Your task to perform on an android device: create a new album in the google photos Image 0: 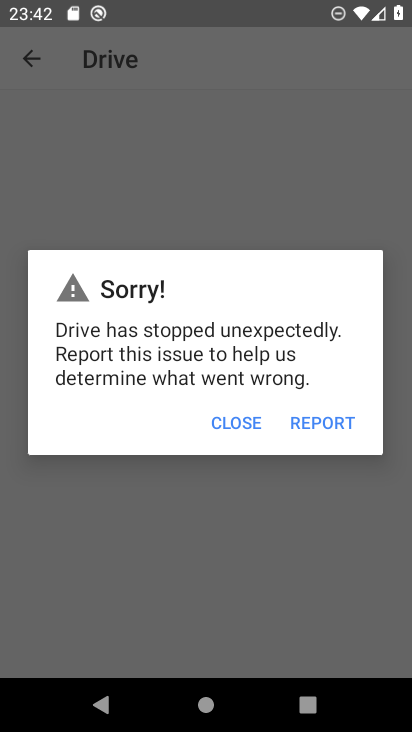
Step 0: press home button
Your task to perform on an android device: create a new album in the google photos Image 1: 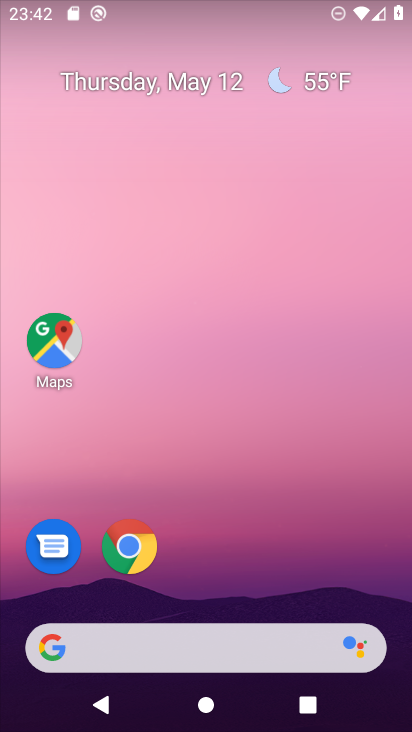
Step 1: drag from (215, 526) to (255, 229)
Your task to perform on an android device: create a new album in the google photos Image 2: 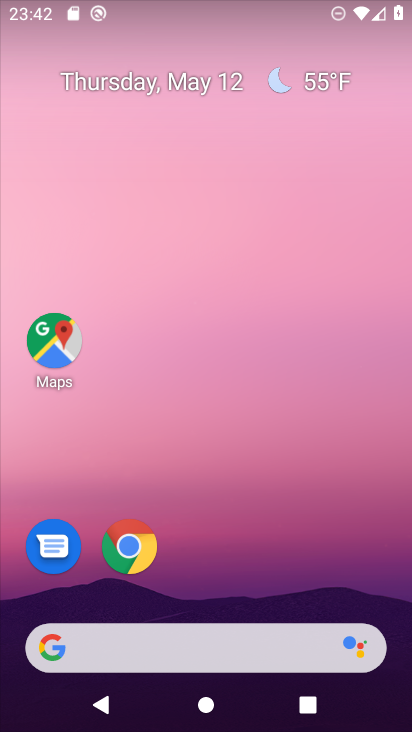
Step 2: drag from (218, 599) to (218, 239)
Your task to perform on an android device: create a new album in the google photos Image 3: 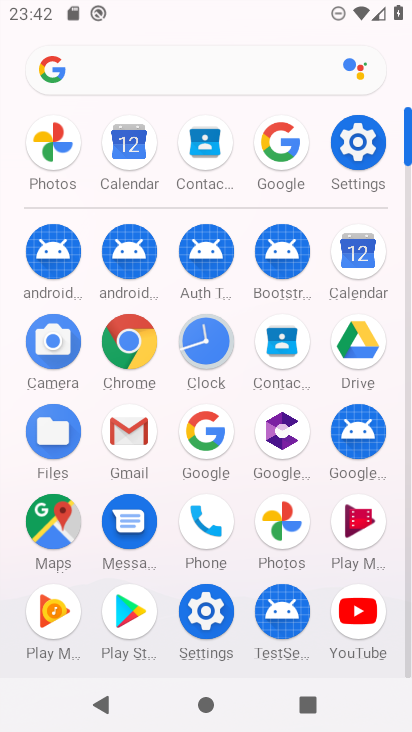
Step 3: click (285, 537)
Your task to perform on an android device: create a new album in the google photos Image 4: 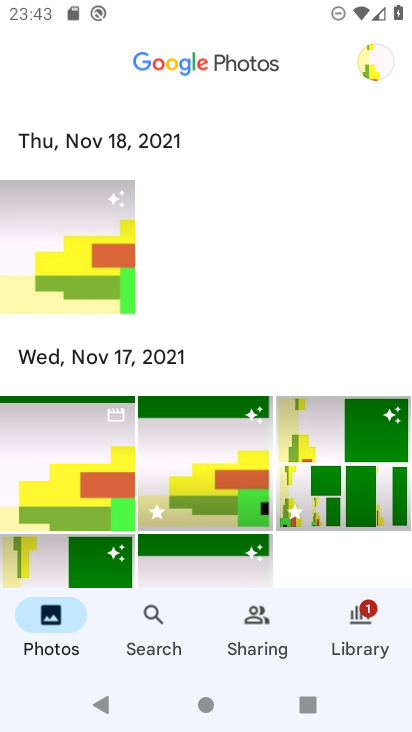
Step 4: click (376, 62)
Your task to perform on an android device: create a new album in the google photos Image 5: 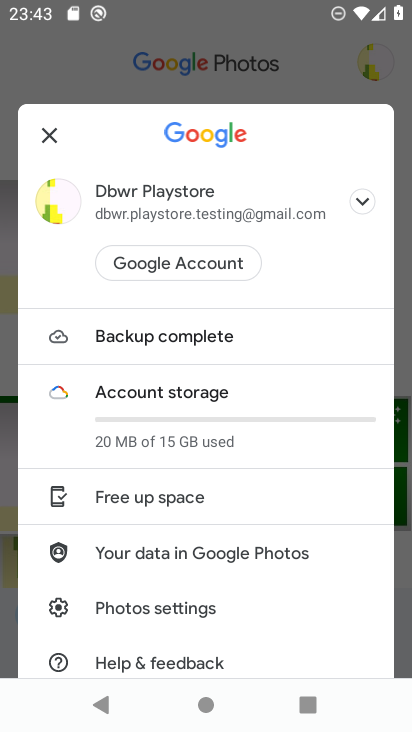
Step 5: click (97, 695)
Your task to perform on an android device: create a new album in the google photos Image 6: 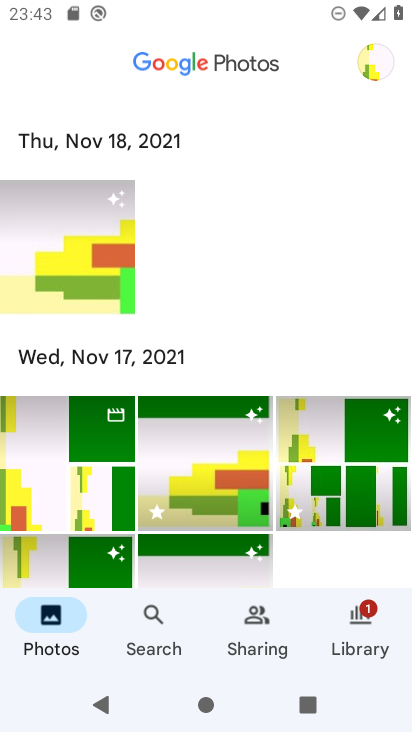
Step 6: click (362, 630)
Your task to perform on an android device: create a new album in the google photos Image 7: 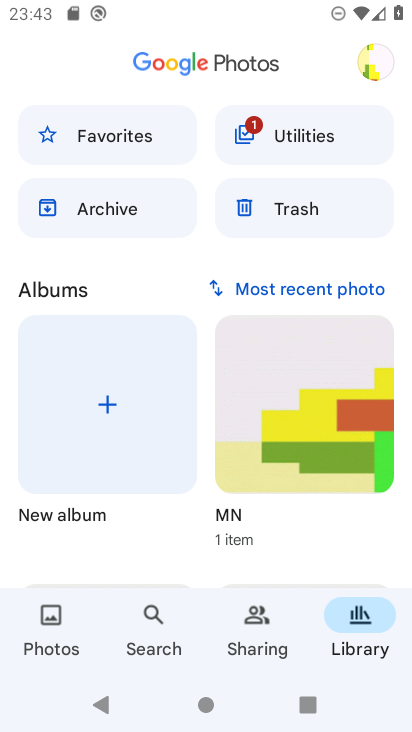
Step 7: click (90, 406)
Your task to perform on an android device: create a new album in the google photos Image 8: 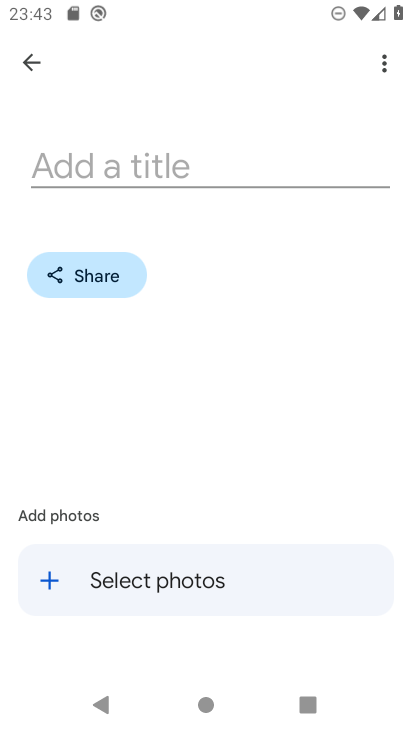
Step 8: click (90, 168)
Your task to perform on an android device: create a new album in the google photos Image 9: 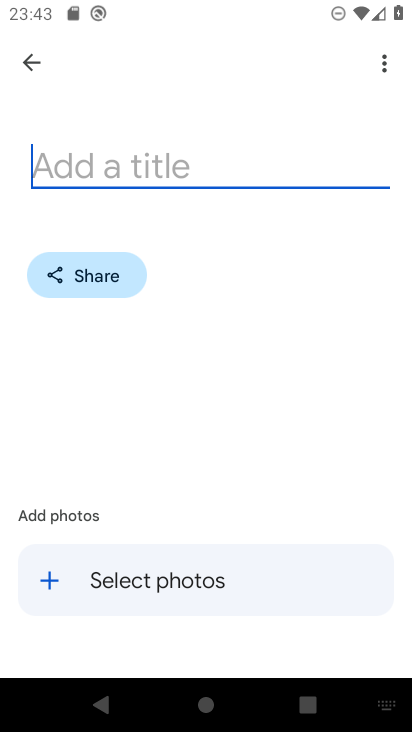
Step 9: type "scasc"
Your task to perform on an android device: create a new album in the google photos Image 10: 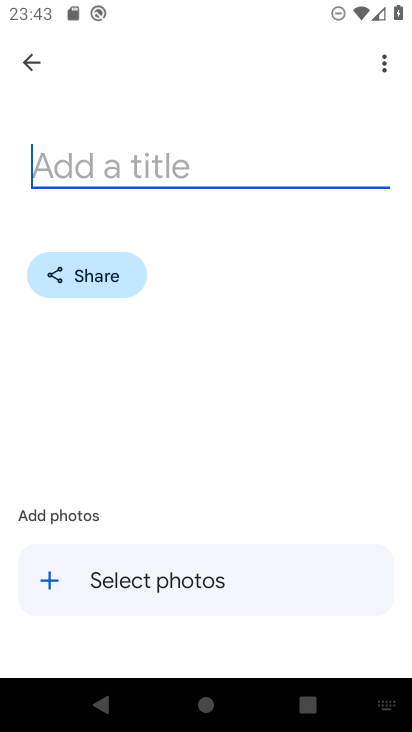
Step 10: click (121, 585)
Your task to perform on an android device: create a new album in the google photos Image 11: 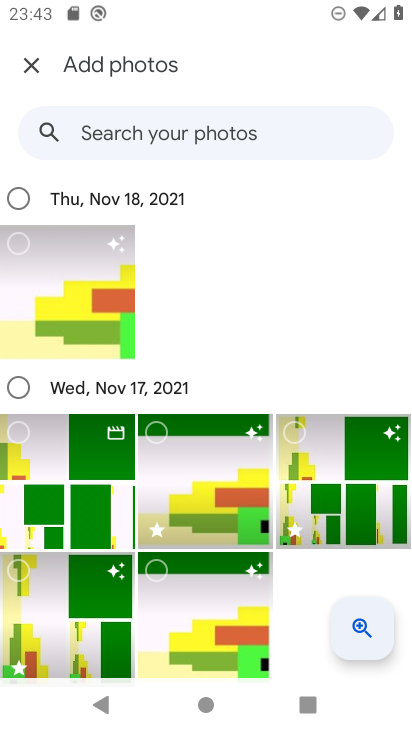
Step 11: click (153, 431)
Your task to perform on an android device: create a new album in the google photos Image 12: 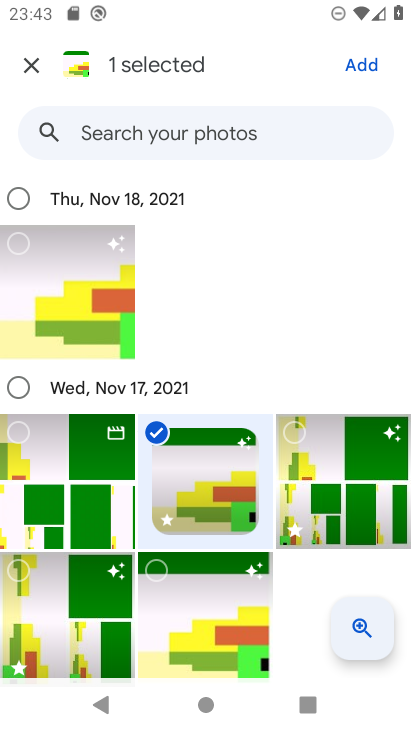
Step 12: click (366, 70)
Your task to perform on an android device: create a new album in the google photos Image 13: 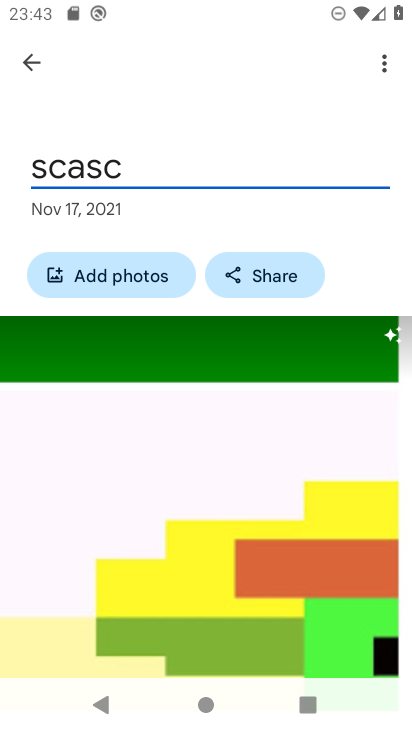
Step 13: task complete